Your task to perform on an android device: stop showing notifications on the lock screen Image 0: 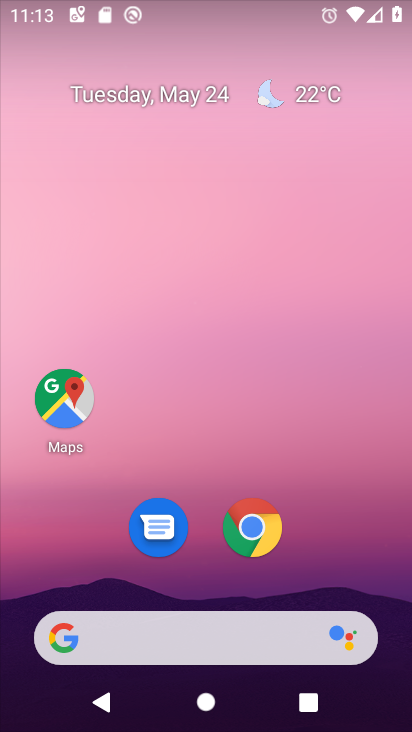
Step 0: press home button
Your task to perform on an android device: stop showing notifications on the lock screen Image 1: 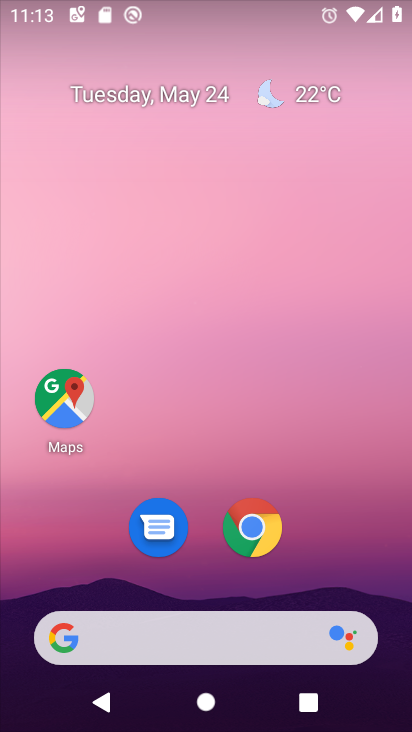
Step 1: drag from (196, 633) to (294, 199)
Your task to perform on an android device: stop showing notifications on the lock screen Image 2: 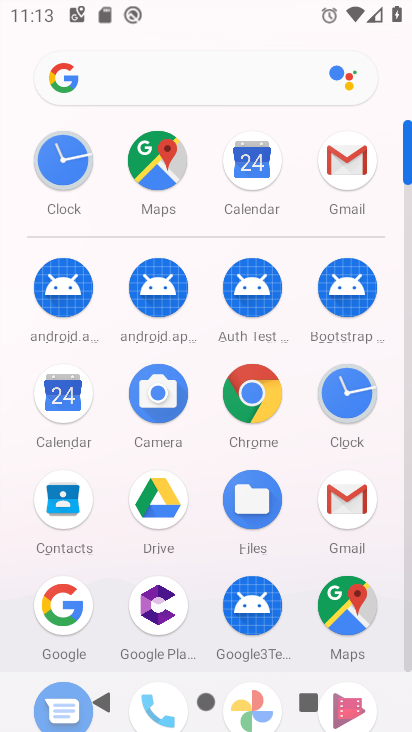
Step 2: drag from (195, 575) to (369, 104)
Your task to perform on an android device: stop showing notifications on the lock screen Image 3: 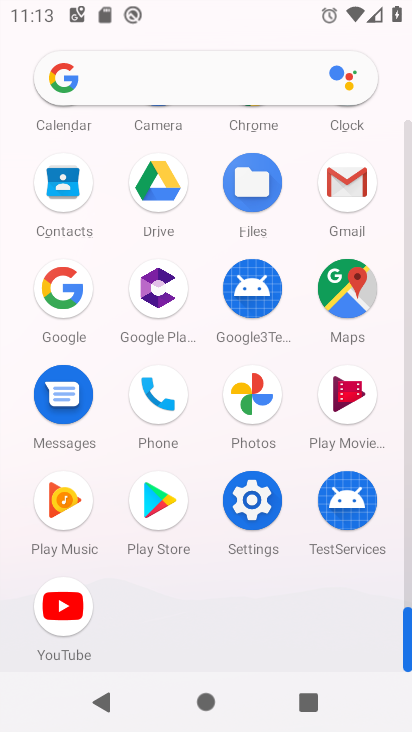
Step 3: click (266, 496)
Your task to perform on an android device: stop showing notifications on the lock screen Image 4: 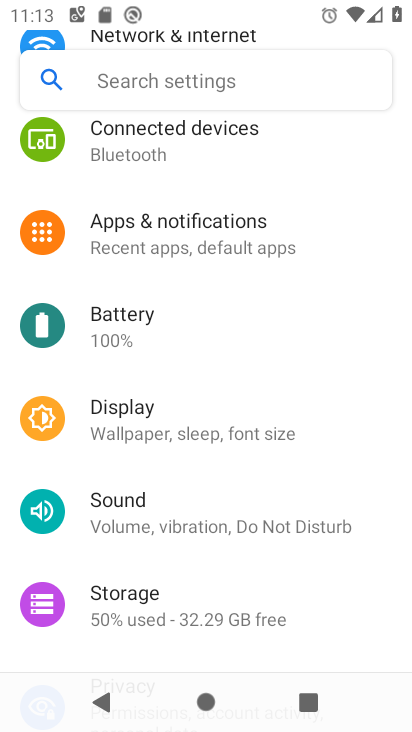
Step 4: click (236, 216)
Your task to perform on an android device: stop showing notifications on the lock screen Image 5: 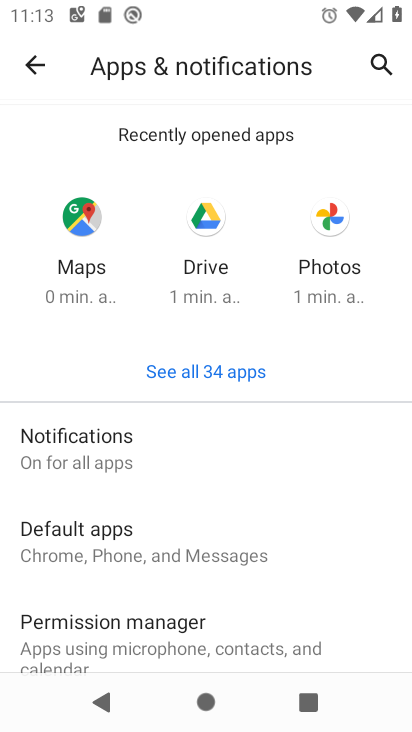
Step 5: click (94, 441)
Your task to perform on an android device: stop showing notifications on the lock screen Image 6: 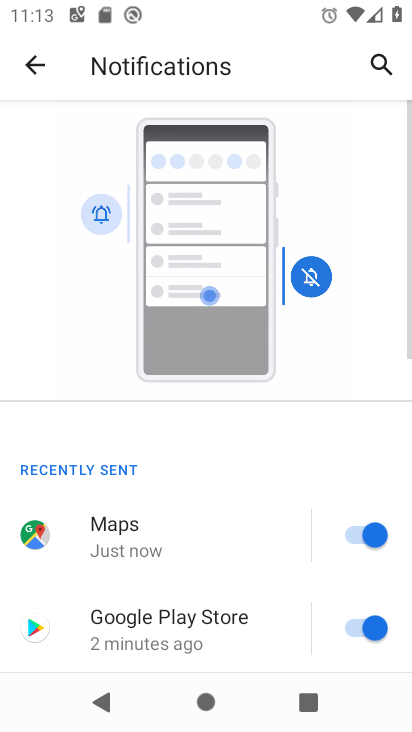
Step 6: drag from (172, 520) to (297, 162)
Your task to perform on an android device: stop showing notifications on the lock screen Image 7: 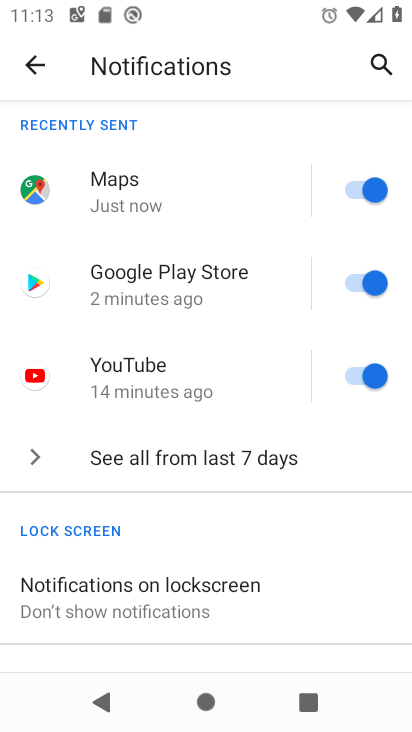
Step 7: drag from (158, 534) to (264, 259)
Your task to perform on an android device: stop showing notifications on the lock screen Image 8: 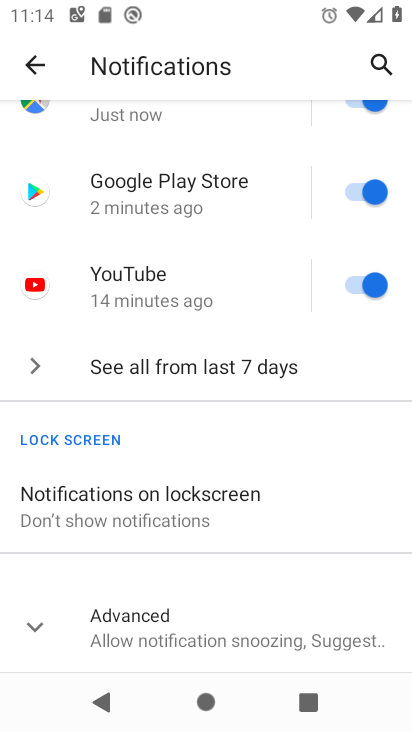
Step 8: click (166, 497)
Your task to perform on an android device: stop showing notifications on the lock screen Image 9: 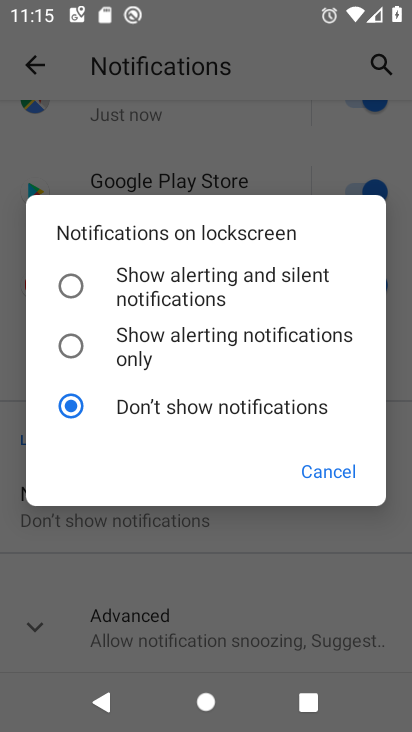
Step 9: task complete